Your task to perform on an android device: Open the web browser Image 0: 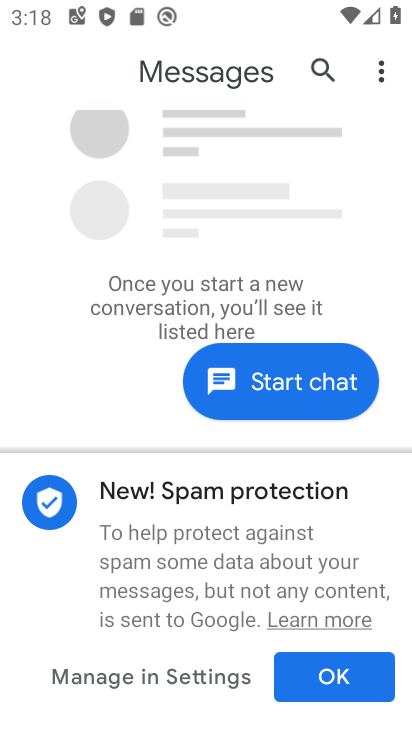
Step 0: press home button
Your task to perform on an android device: Open the web browser Image 1: 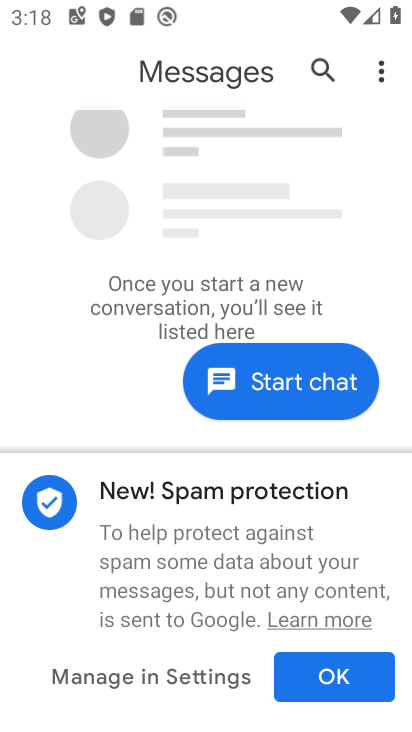
Step 1: press home button
Your task to perform on an android device: Open the web browser Image 2: 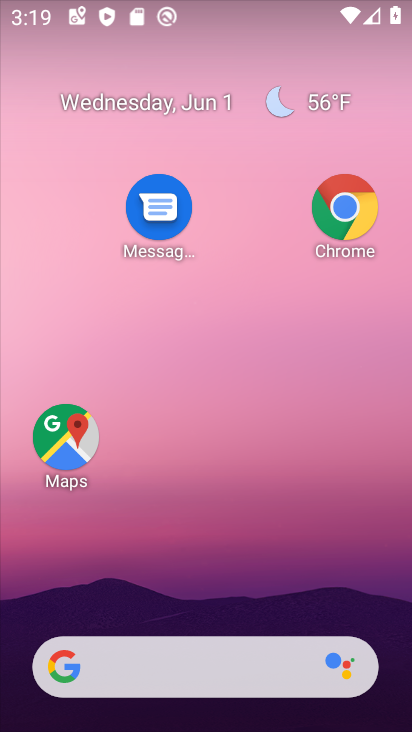
Step 2: drag from (222, 535) to (208, 130)
Your task to perform on an android device: Open the web browser Image 3: 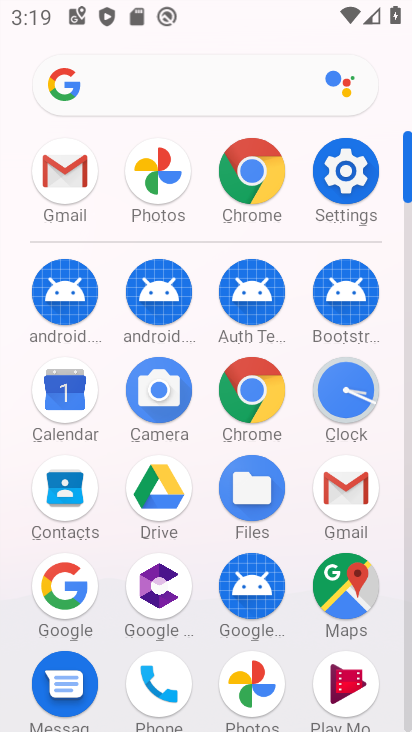
Step 3: click (261, 385)
Your task to perform on an android device: Open the web browser Image 4: 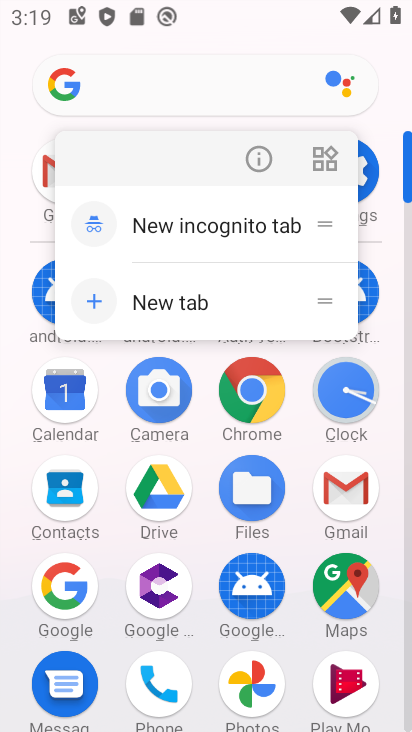
Step 4: click (256, 167)
Your task to perform on an android device: Open the web browser Image 5: 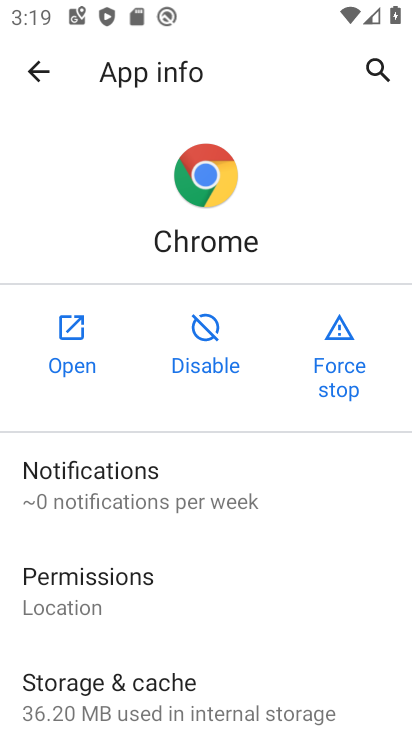
Step 5: click (73, 326)
Your task to perform on an android device: Open the web browser Image 6: 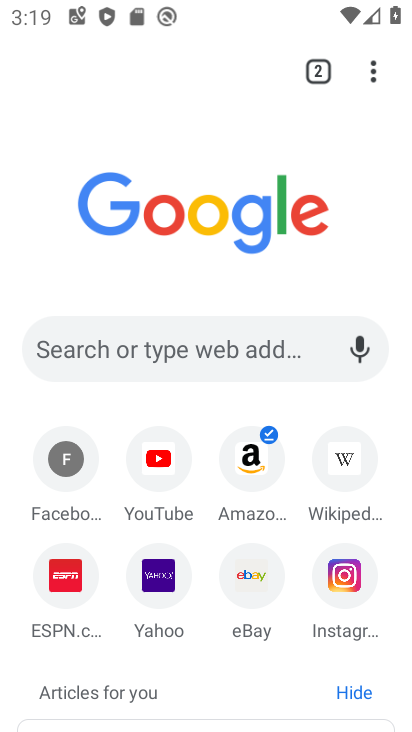
Step 6: task complete